Your task to perform on an android device: Do I have any events today? Image 0: 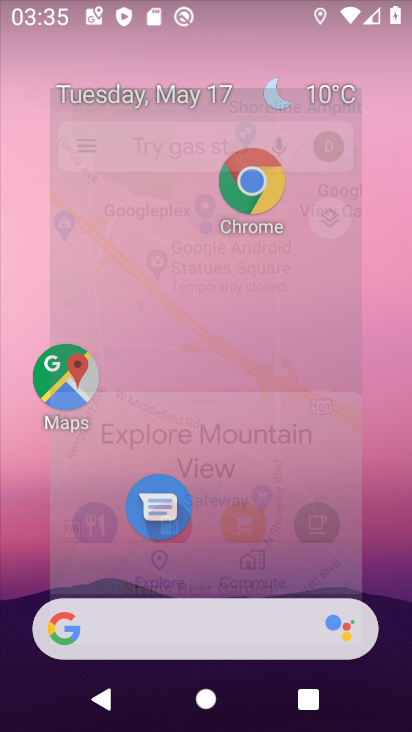
Step 0: drag from (262, 560) to (184, 201)
Your task to perform on an android device: Do I have any events today? Image 1: 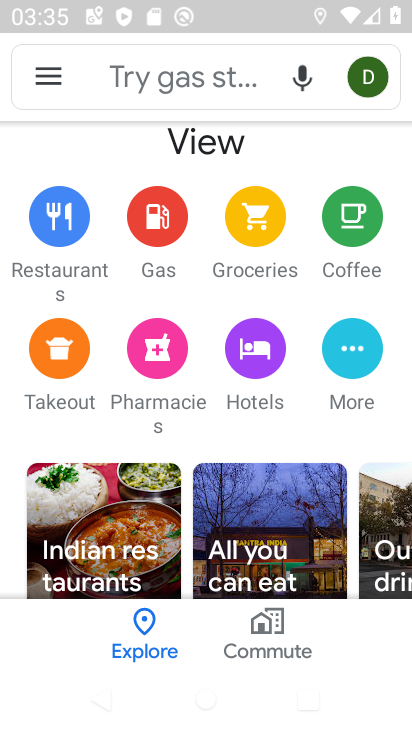
Step 1: press home button
Your task to perform on an android device: Do I have any events today? Image 2: 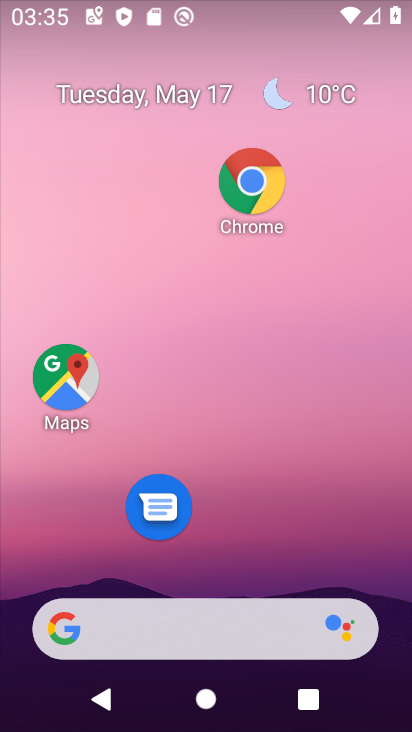
Step 2: click (59, 89)
Your task to perform on an android device: Do I have any events today? Image 3: 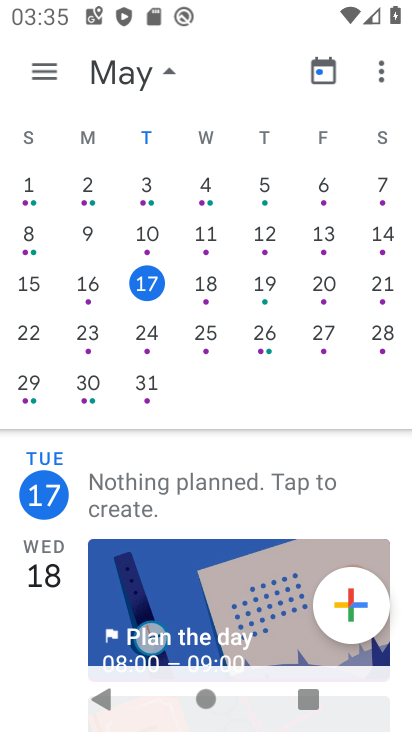
Step 3: task complete